Your task to perform on an android device: What's the weather going to be tomorrow? Image 0: 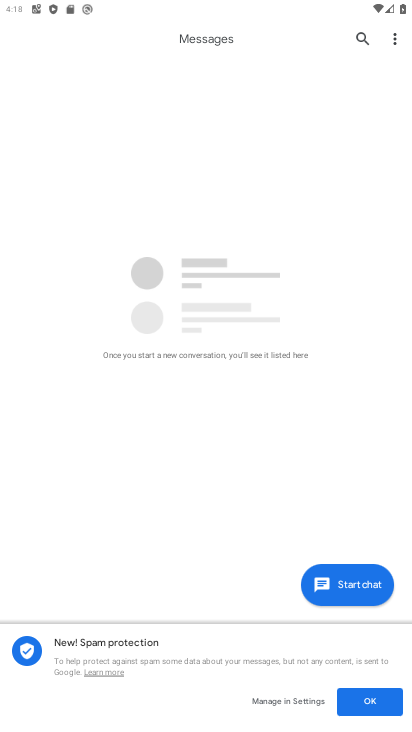
Step 0: press home button
Your task to perform on an android device: What's the weather going to be tomorrow? Image 1: 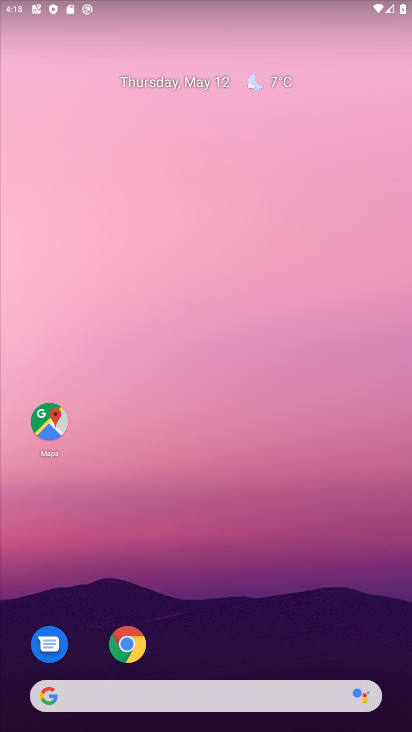
Step 1: click (282, 81)
Your task to perform on an android device: What's the weather going to be tomorrow? Image 2: 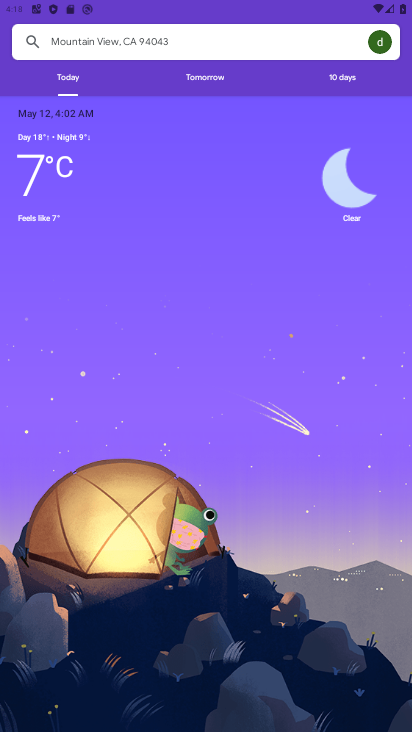
Step 2: click (196, 72)
Your task to perform on an android device: What's the weather going to be tomorrow? Image 3: 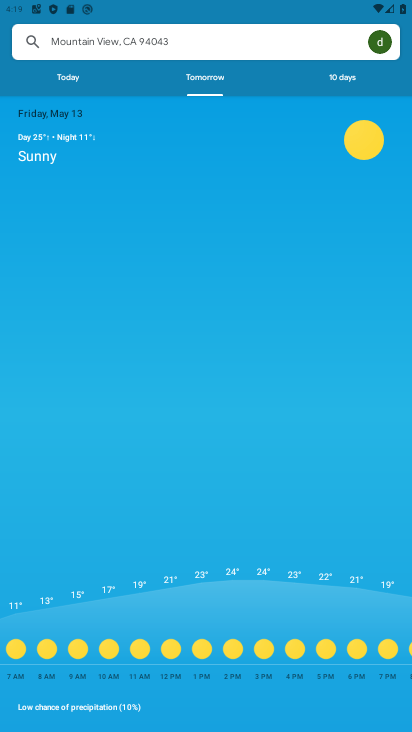
Step 3: task complete